Your task to perform on an android device: see sites visited before in the chrome app Image 0: 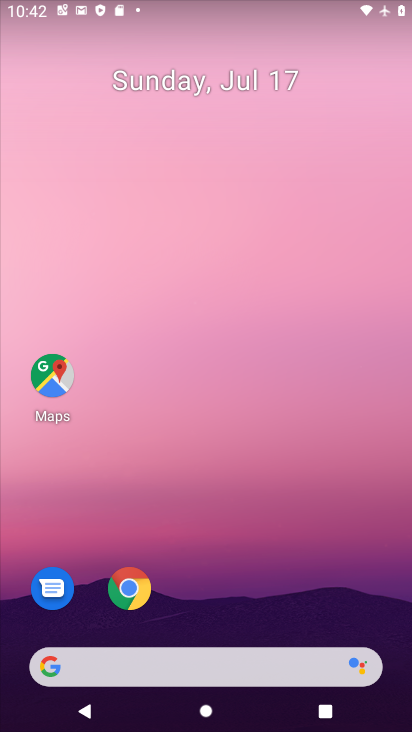
Step 0: press home button
Your task to perform on an android device: see sites visited before in the chrome app Image 1: 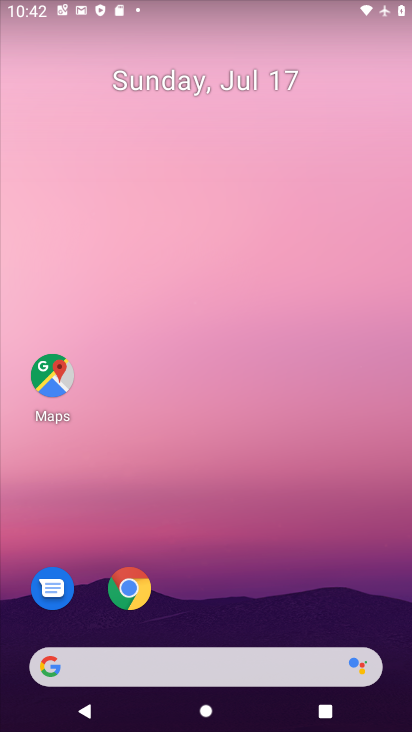
Step 1: click (140, 602)
Your task to perform on an android device: see sites visited before in the chrome app Image 2: 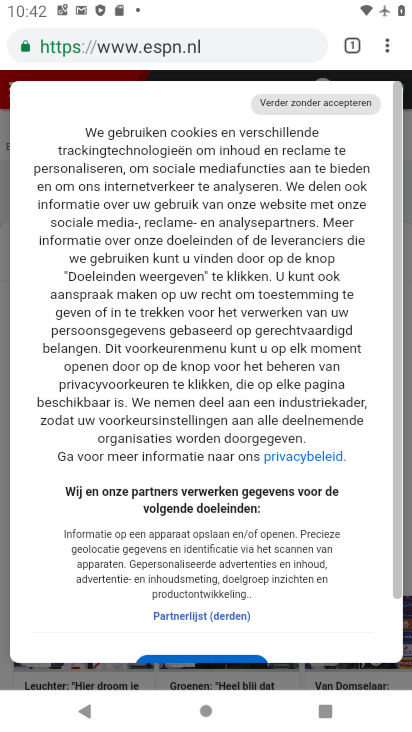
Step 2: task complete